Your task to perform on an android device: Go to Yahoo.com Image 0: 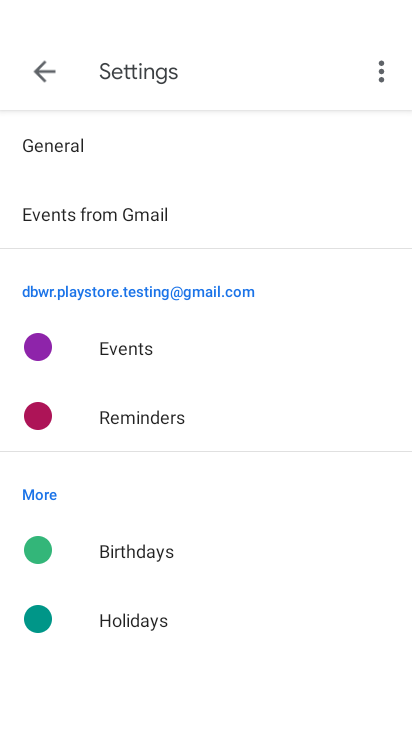
Step 0: press back button
Your task to perform on an android device: Go to Yahoo.com Image 1: 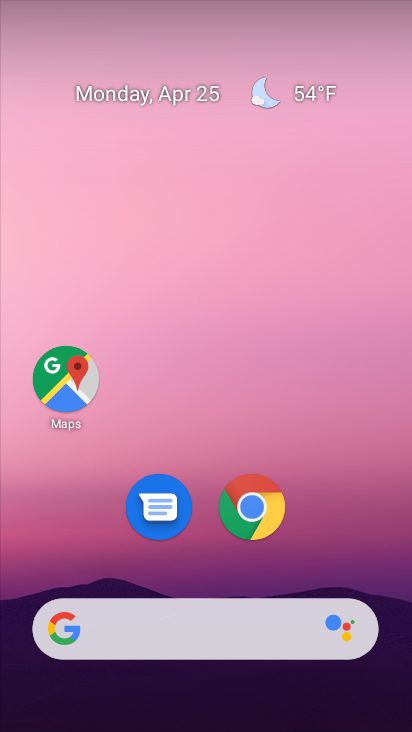
Step 1: click (254, 501)
Your task to perform on an android device: Go to Yahoo.com Image 2: 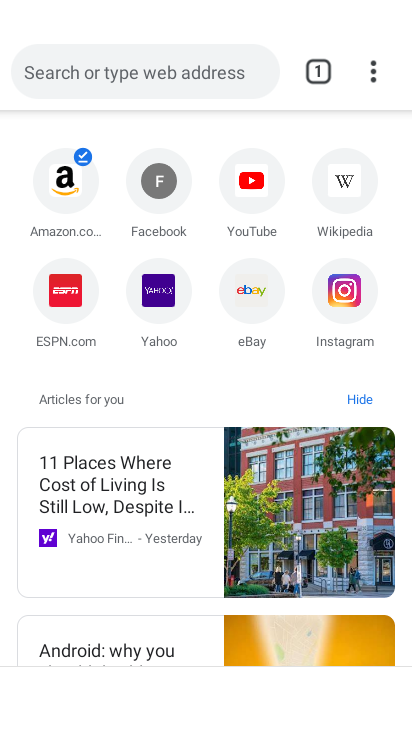
Step 2: click (204, 51)
Your task to perform on an android device: Go to Yahoo.com Image 3: 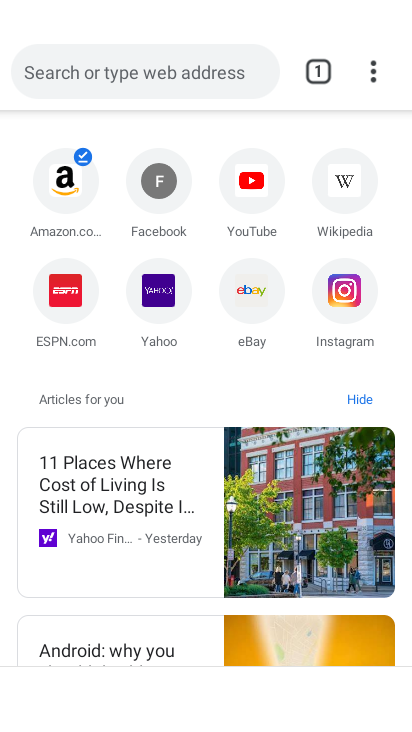
Step 3: click (204, 66)
Your task to perform on an android device: Go to Yahoo.com Image 4: 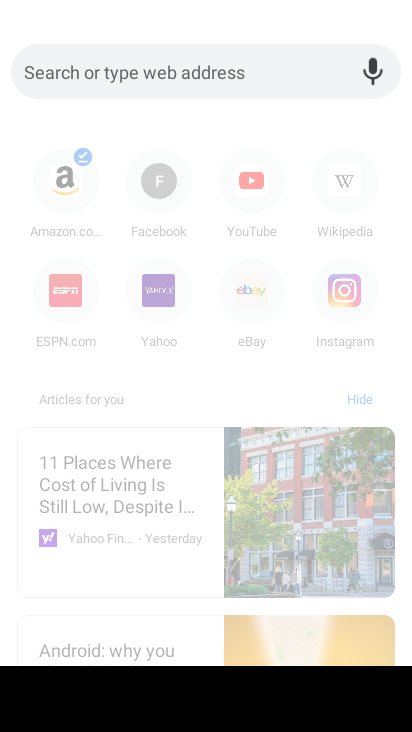
Step 4: type " Yahoo.com"
Your task to perform on an android device: Go to Yahoo.com Image 5: 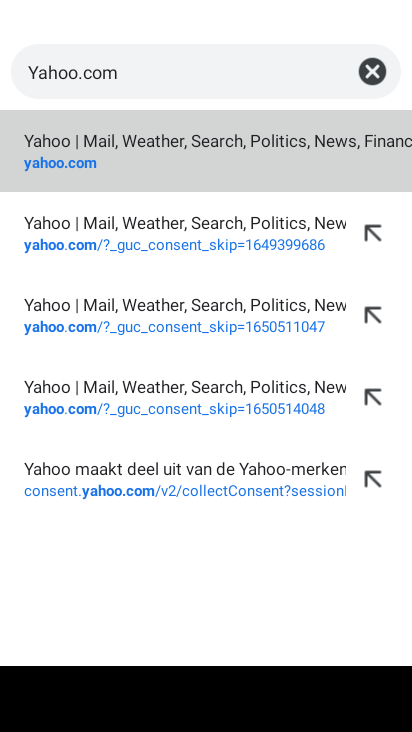
Step 5: click (192, 153)
Your task to perform on an android device: Go to Yahoo.com Image 6: 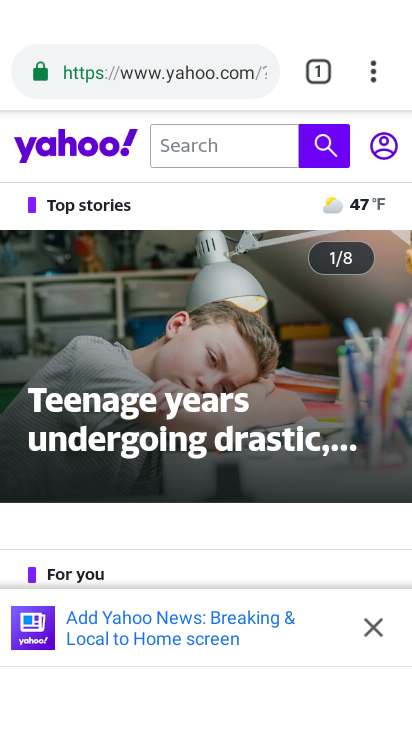
Step 6: task complete